Your task to perform on an android device: turn on wifi Image 0: 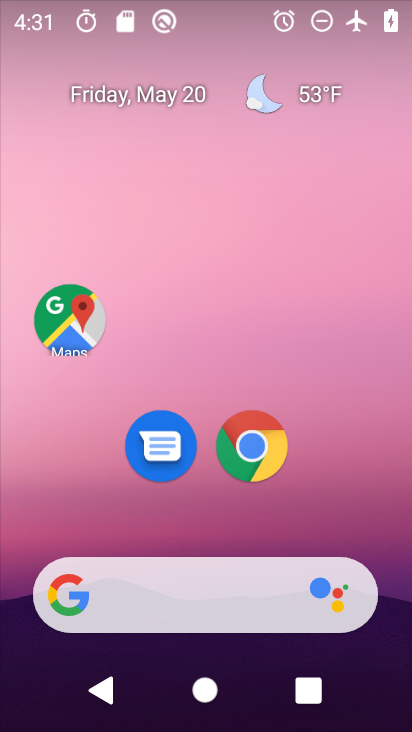
Step 0: drag from (359, 479) to (359, 58)
Your task to perform on an android device: turn on wifi Image 1: 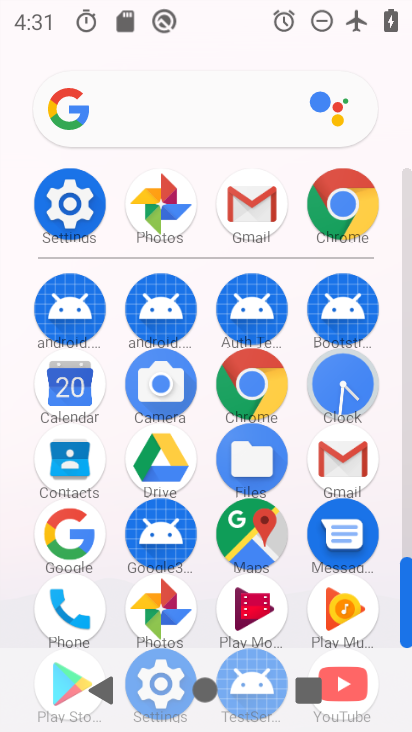
Step 1: click (80, 203)
Your task to perform on an android device: turn on wifi Image 2: 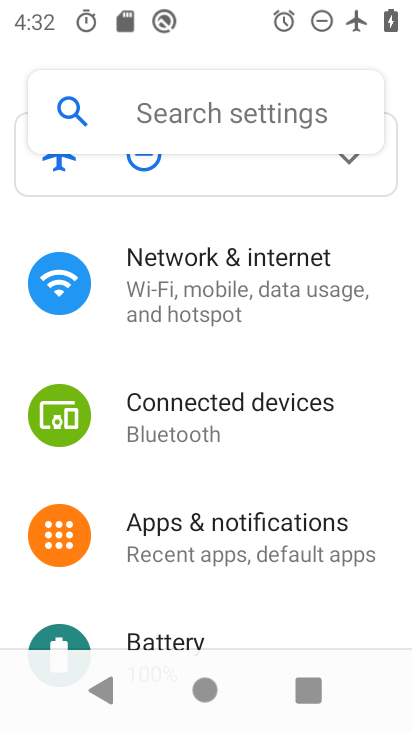
Step 2: click (194, 281)
Your task to perform on an android device: turn on wifi Image 3: 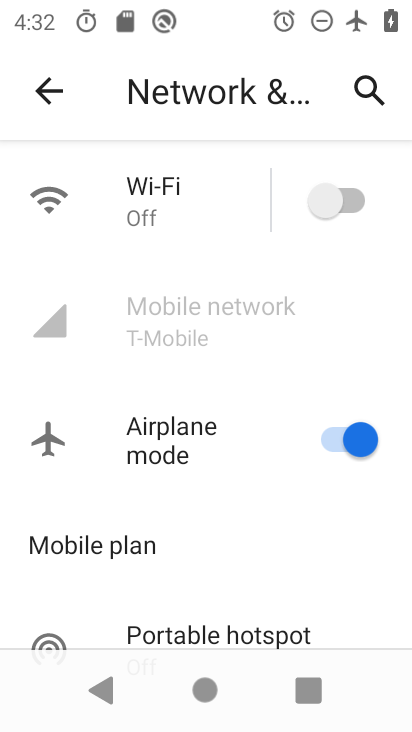
Step 3: click (316, 208)
Your task to perform on an android device: turn on wifi Image 4: 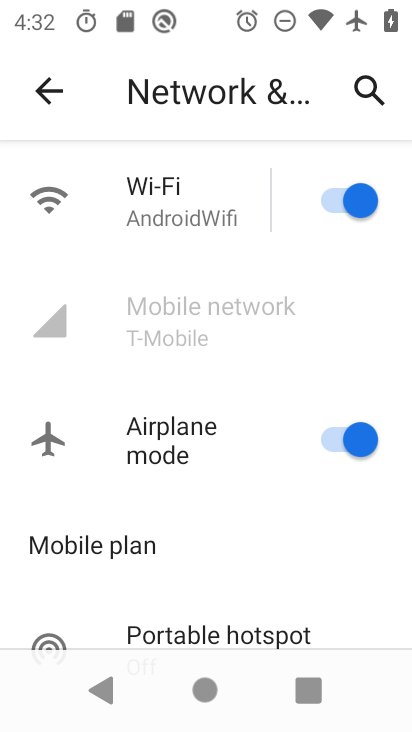
Step 4: task complete